Your task to perform on an android device: delete a single message in the gmail app Image 0: 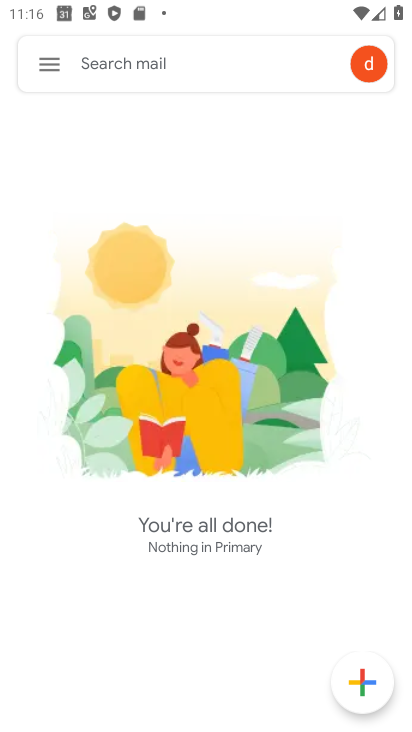
Step 0: press home button
Your task to perform on an android device: delete a single message in the gmail app Image 1: 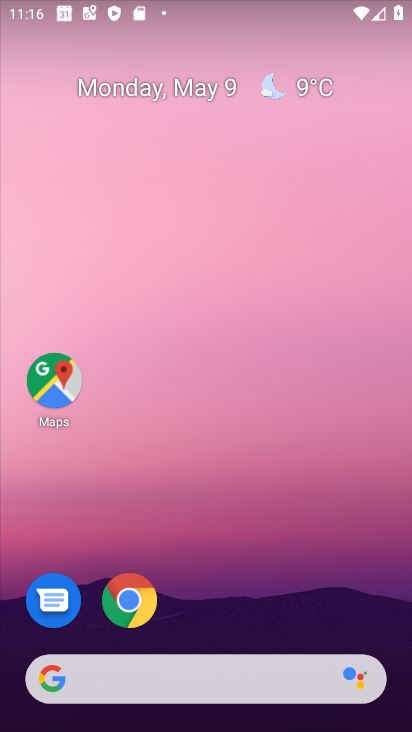
Step 1: drag from (362, 588) to (371, 166)
Your task to perform on an android device: delete a single message in the gmail app Image 2: 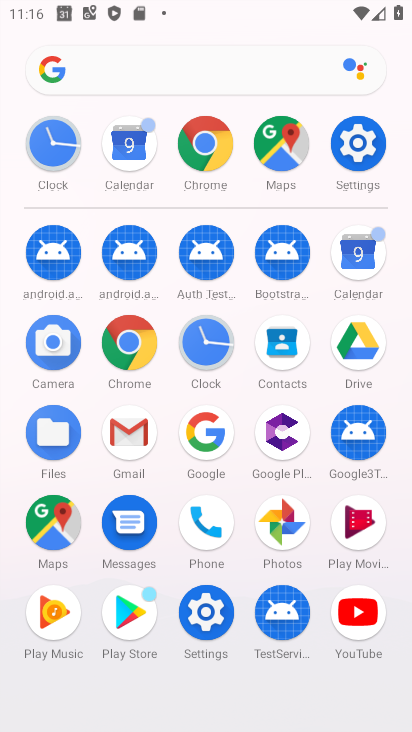
Step 2: click (131, 449)
Your task to perform on an android device: delete a single message in the gmail app Image 3: 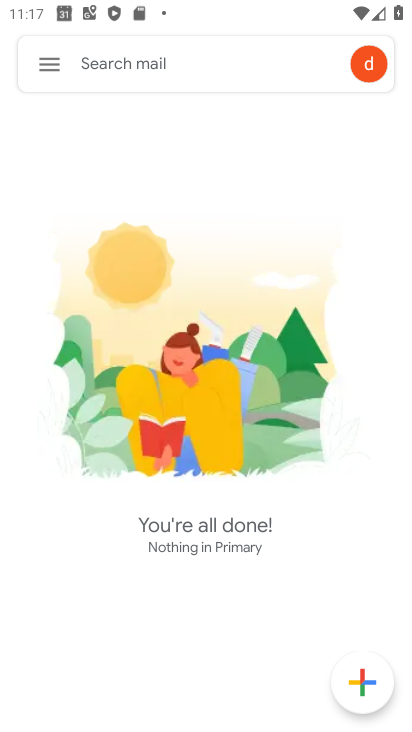
Step 3: task complete